Your task to perform on an android device: Go to sound settings Image 0: 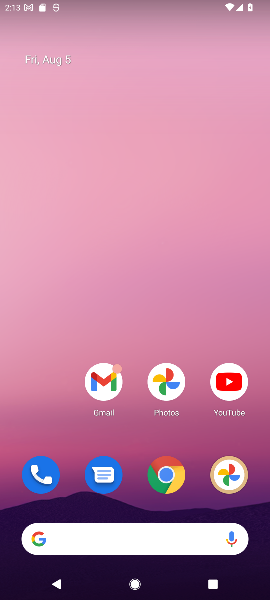
Step 0: drag from (258, 554) to (179, 75)
Your task to perform on an android device: Go to sound settings Image 1: 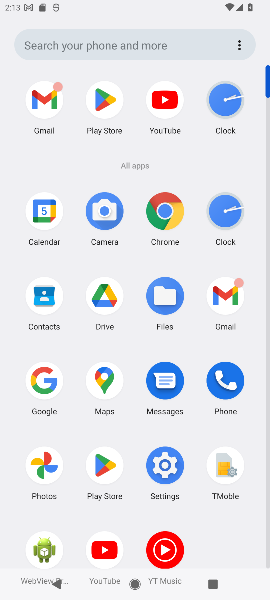
Step 1: click (175, 456)
Your task to perform on an android device: Go to sound settings Image 2: 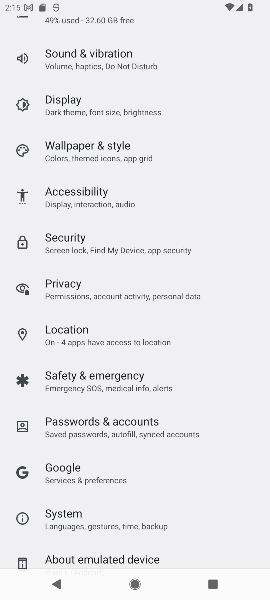
Step 2: drag from (202, 75) to (220, 275)
Your task to perform on an android device: Go to sound settings Image 3: 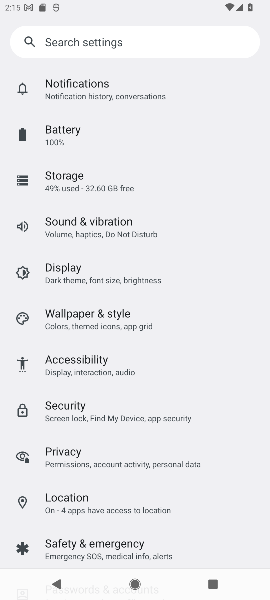
Step 3: click (66, 224)
Your task to perform on an android device: Go to sound settings Image 4: 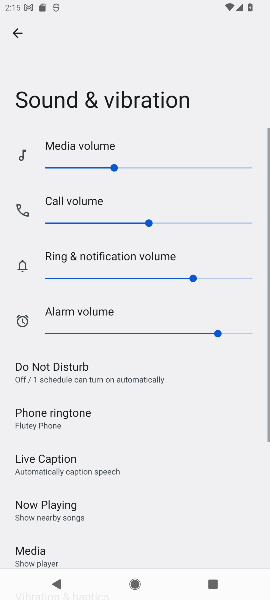
Step 4: task complete